Your task to perform on an android device: toggle data saver in the chrome app Image 0: 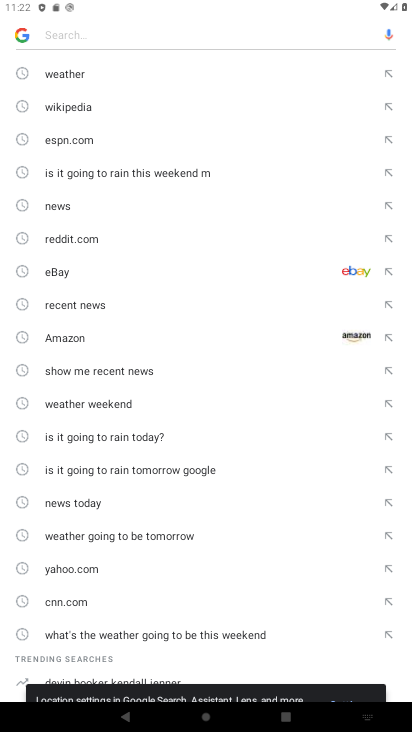
Step 0: press home button
Your task to perform on an android device: toggle data saver in the chrome app Image 1: 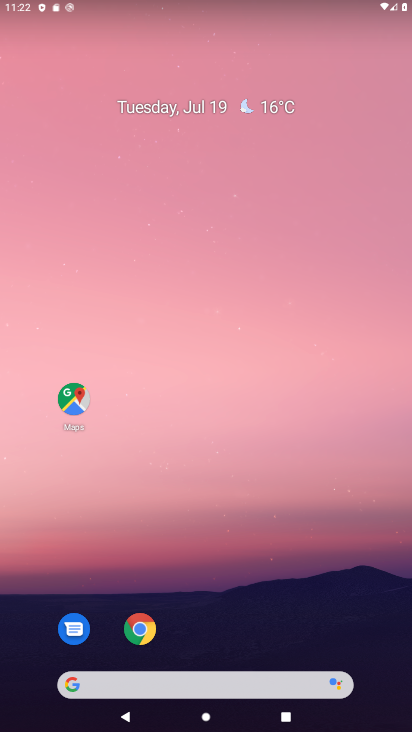
Step 1: click (146, 626)
Your task to perform on an android device: toggle data saver in the chrome app Image 2: 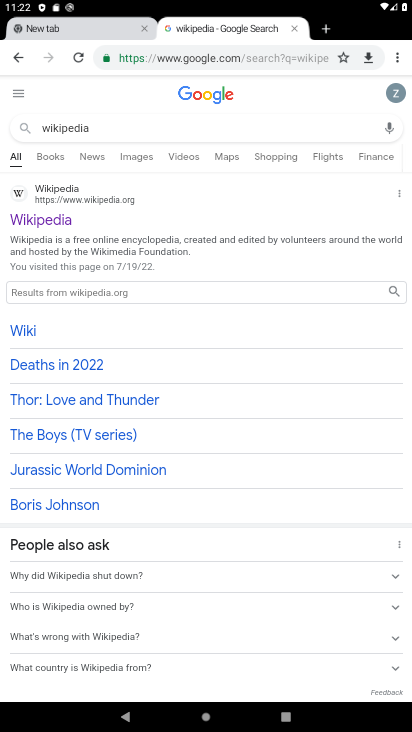
Step 2: click (395, 54)
Your task to perform on an android device: toggle data saver in the chrome app Image 3: 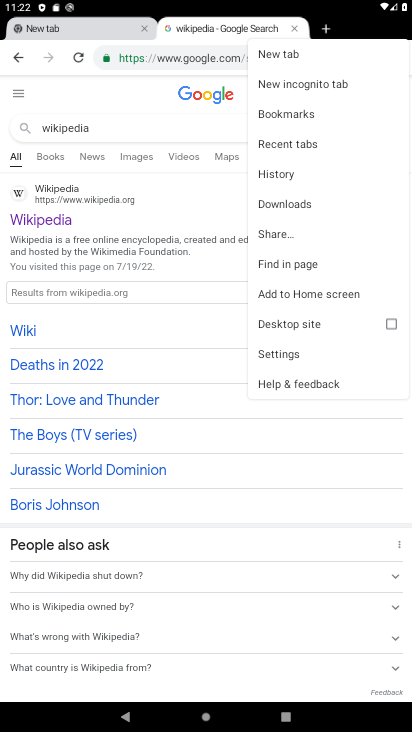
Step 3: click (291, 355)
Your task to perform on an android device: toggle data saver in the chrome app Image 4: 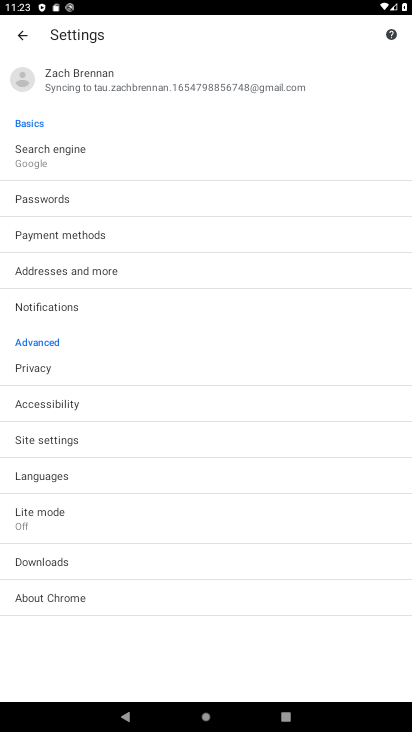
Step 4: click (26, 520)
Your task to perform on an android device: toggle data saver in the chrome app Image 5: 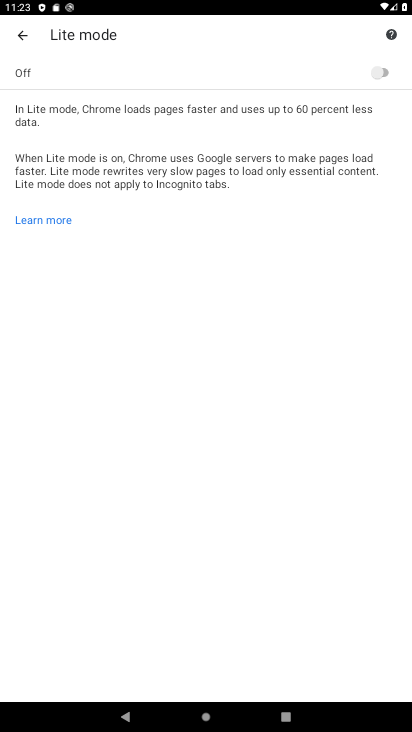
Step 5: click (381, 71)
Your task to perform on an android device: toggle data saver in the chrome app Image 6: 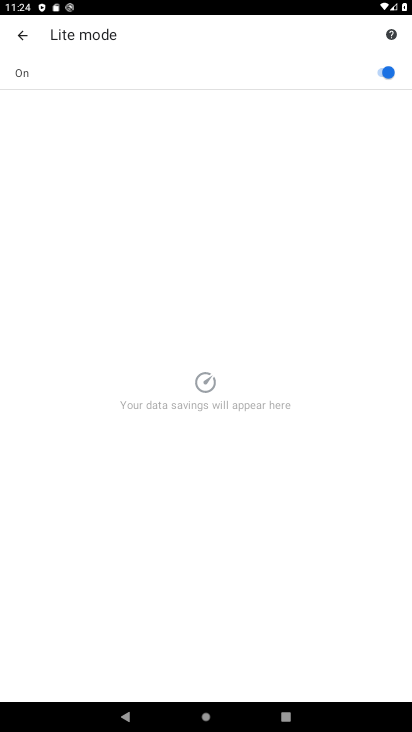
Step 6: click (370, 68)
Your task to perform on an android device: toggle data saver in the chrome app Image 7: 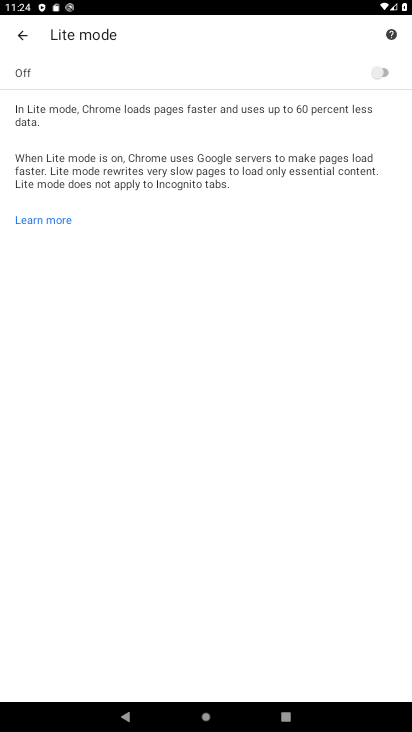
Step 7: task complete